Your task to perform on an android device: turn on sleep mode Image 0: 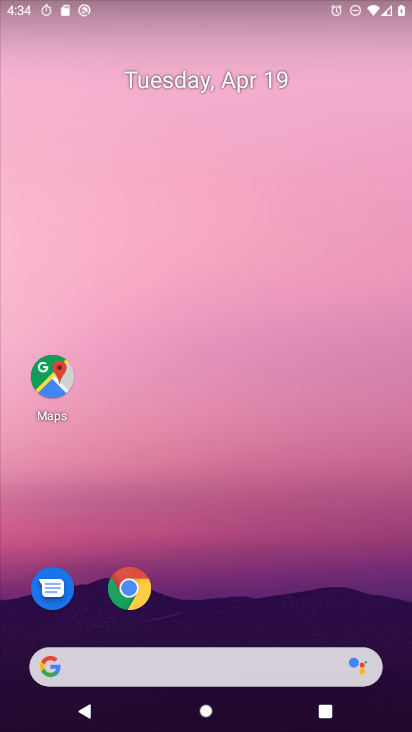
Step 0: drag from (230, 572) to (242, 82)
Your task to perform on an android device: turn on sleep mode Image 1: 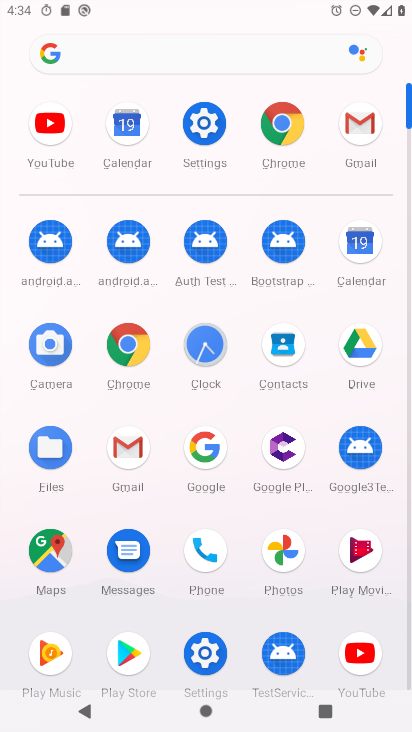
Step 1: click (208, 132)
Your task to perform on an android device: turn on sleep mode Image 2: 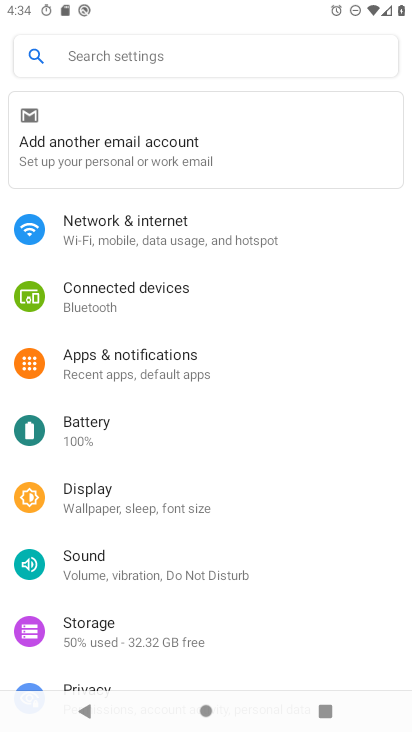
Step 2: click (186, 500)
Your task to perform on an android device: turn on sleep mode Image 3: 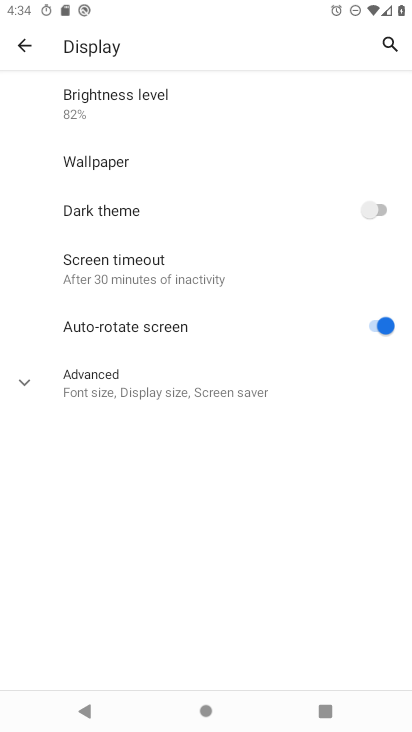
Step 3: task complete